Your task to perform on an android device: Open calendar and show me the first week of next month Image 0: 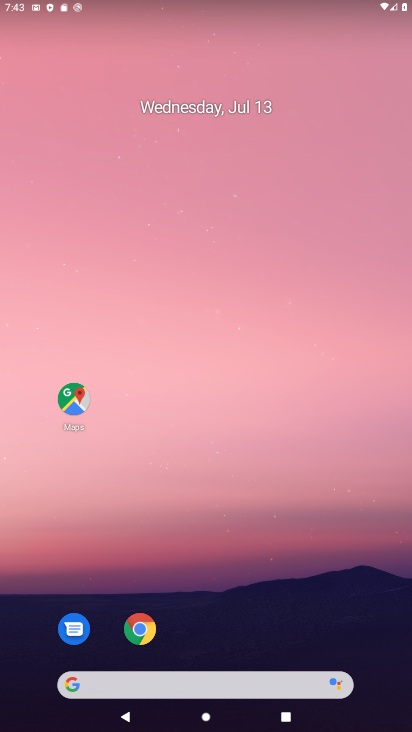
Step 0: drag from (231, 657) to (292, 148)
Your task to perform on an android device: Open calendar and show me the first week of next month Image 1: 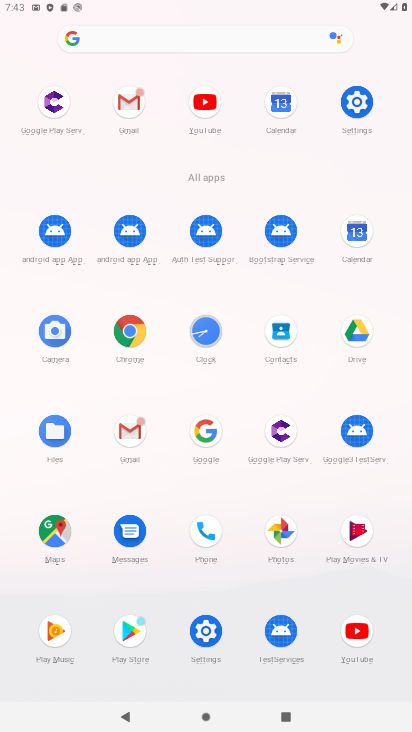
Step 1: click (354, 238)
Your task to perform on an android device: Open calendar and show me the first week of next month Image 2: 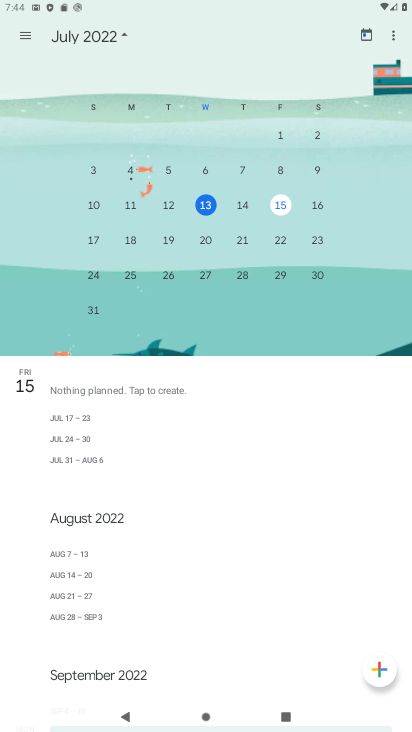
Step 2: drag from (387, 310) to (0, 298)
Your task to perform on an android device: Open calendar and show me the first week of next month Image 3: 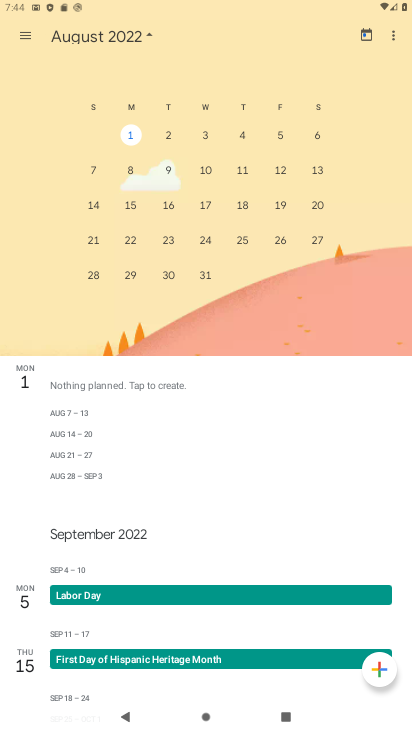
Step 3: click (281, 137)
Your task to perform on an android device: Open calendar and show me the first week of next month Image 4: 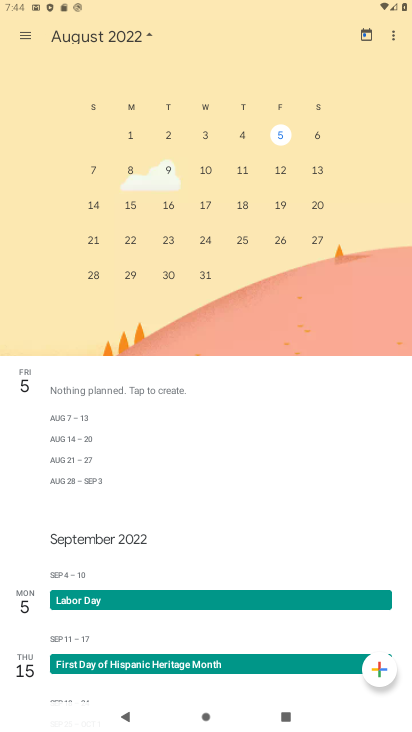
Step 4: task complete